Your task to perform on an android device: change notification settings in the gmail app Image 0: 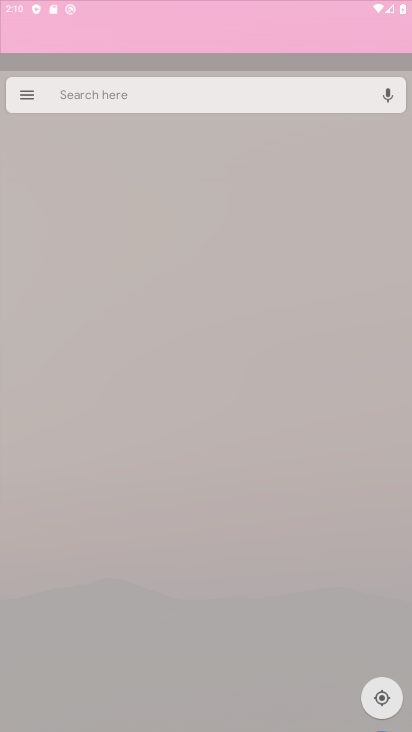
Step 0: click (142, 650)
Your task to perform on an android device: change notification settings in the gmail app Image 1: 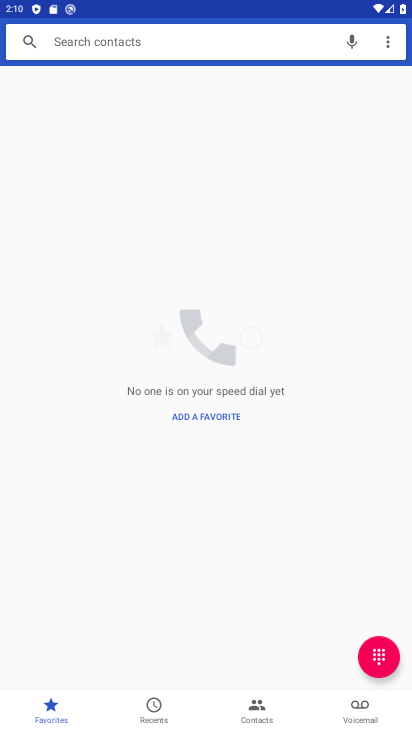
Step 1: press home button
Your task to perform on an android device: change notification settings in the gmail app Image 2: 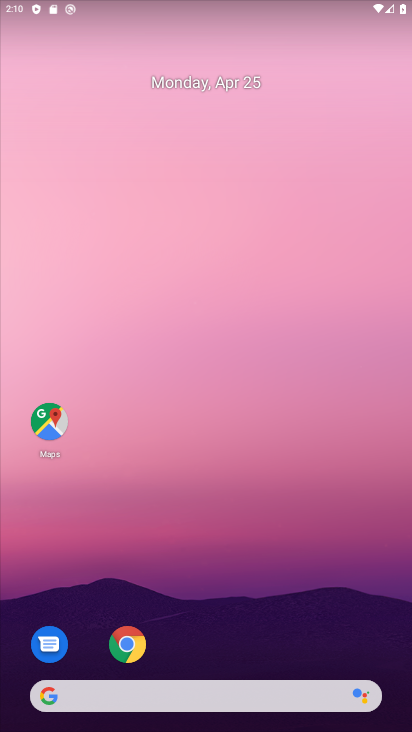
Step 2: drag from (217, 660) to (171, 207)
Your task to perform on an android device: change notification settings in the gmail app Image 3: 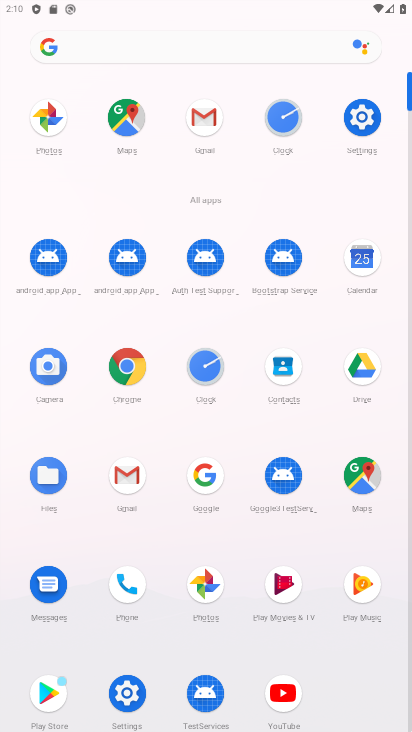
Step 3: click (205, 132)
Your task to perform on an android device: change notification settings in the gmail app Image 4: 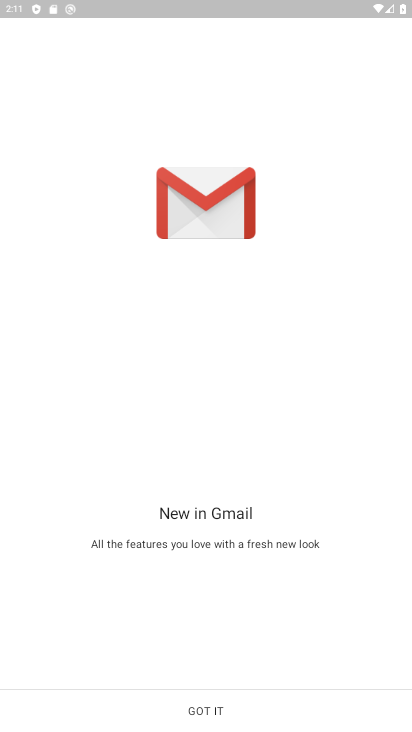
Step 4: click (207, 724)
Your task to perform on an android device: change notification settings in the gmail app Image 5: 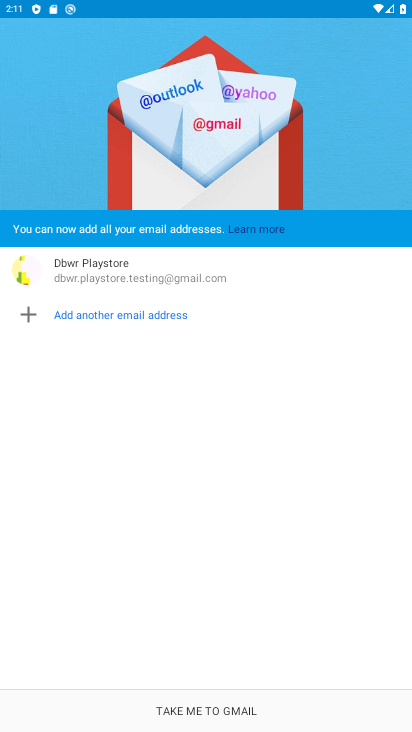
Step 5: click (207, 723)
Your task to perform on an android device: change notification settings in the gmail app Image 6: 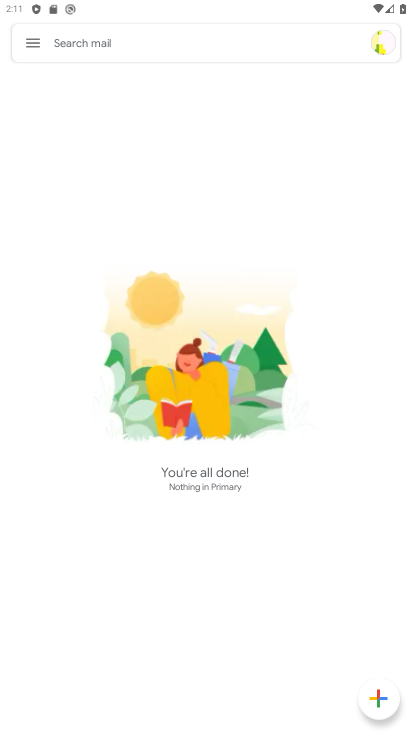
Step 6: click (34, 49)
Your task to perform on an android device: change notification settings in the gmail app Image 7: 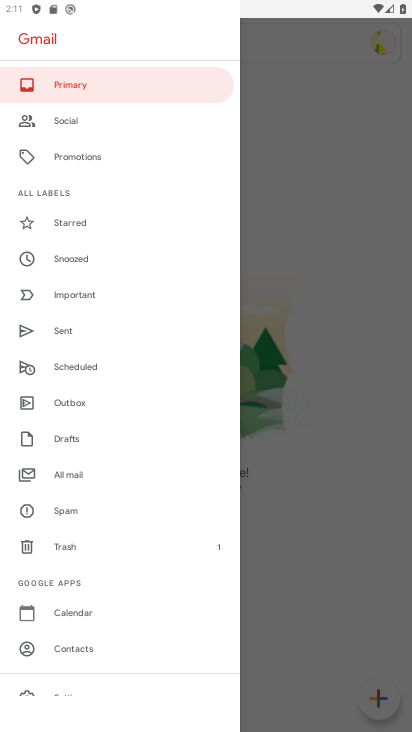
Step 7: drag from (185, 622) to (97, 209)
Your task to perform on an android device: change notification settings in the gmail app Image 8: 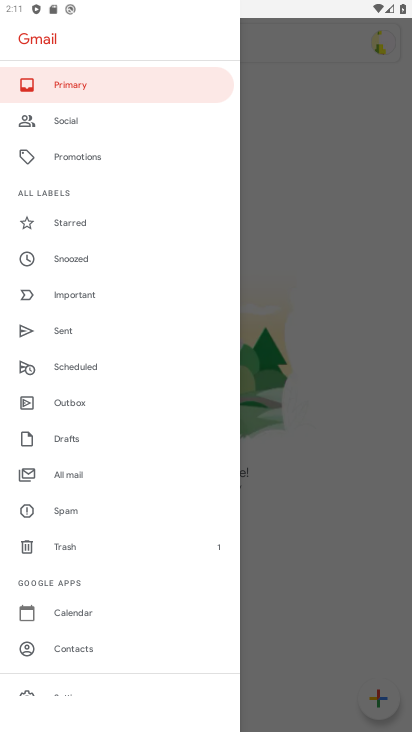
Step 8: drag from (130, 623) to (138, 232)
Your task to perform on an android device: change notification settings in the gmail app Image 9: 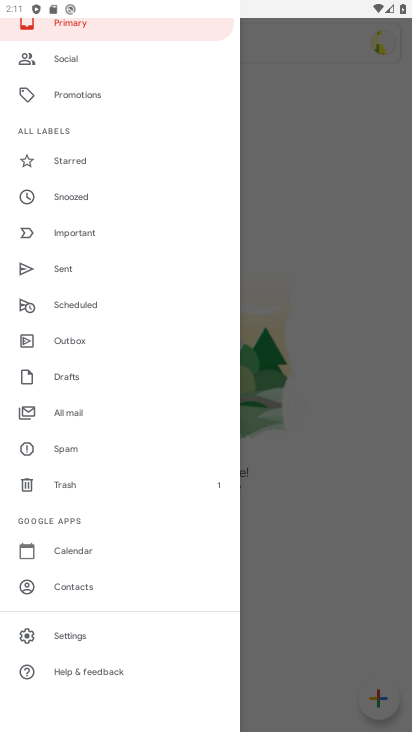
Step 9: click (142, 642)
Your task to perform on an android device: change notification settings in the gmail app Image 10: 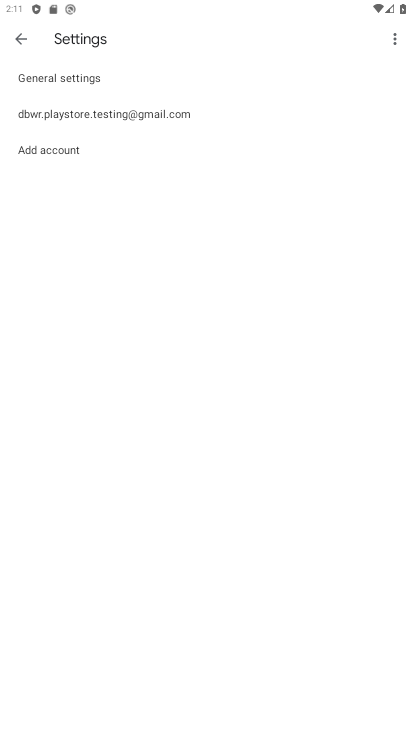
Step 10: click (229, 113)
Your task to perform on an android device: change notification settings in the gmail app Image 11: 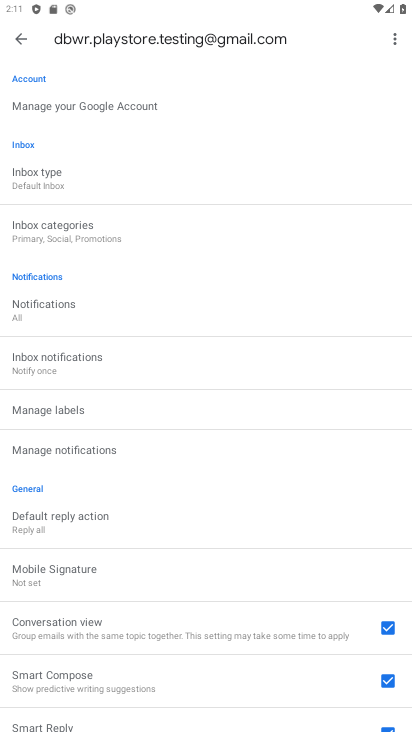
Step 11: click (198, 455)
Your task to perform on an android device: change notification settings in the gmail app Image 12: 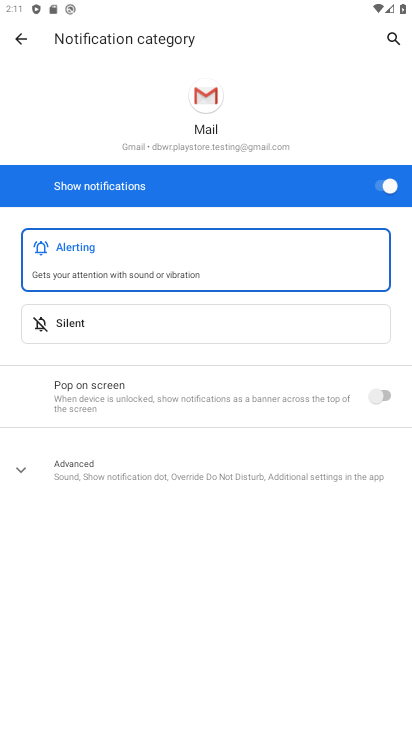
Step 12: click (273, 330)
Your task to perform on an android device: change notification settings in the gmail app Image 13: 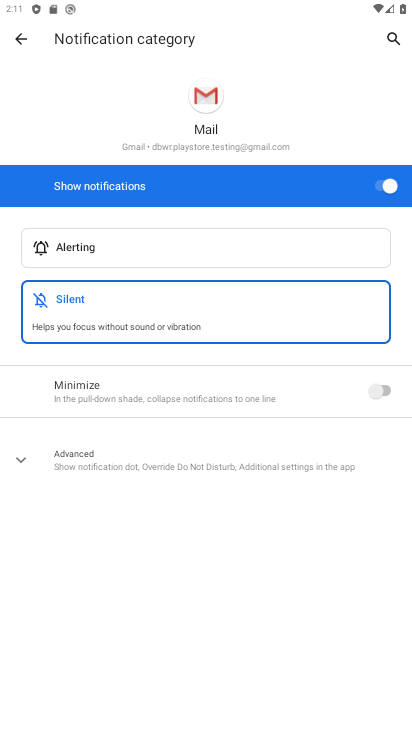
Step 13: click (386, 401)
Your task to perform on an android device: change notification settings in the gmail app Image 14: 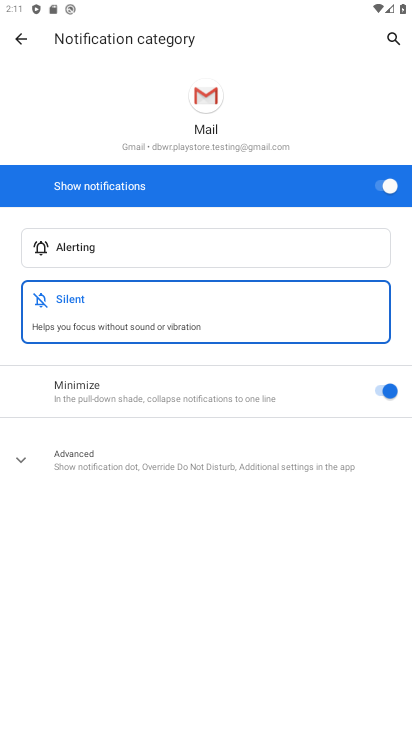
Step 14: task complete